Your task to perform on an android device: turn on the 24-hour format for clock Image 0: 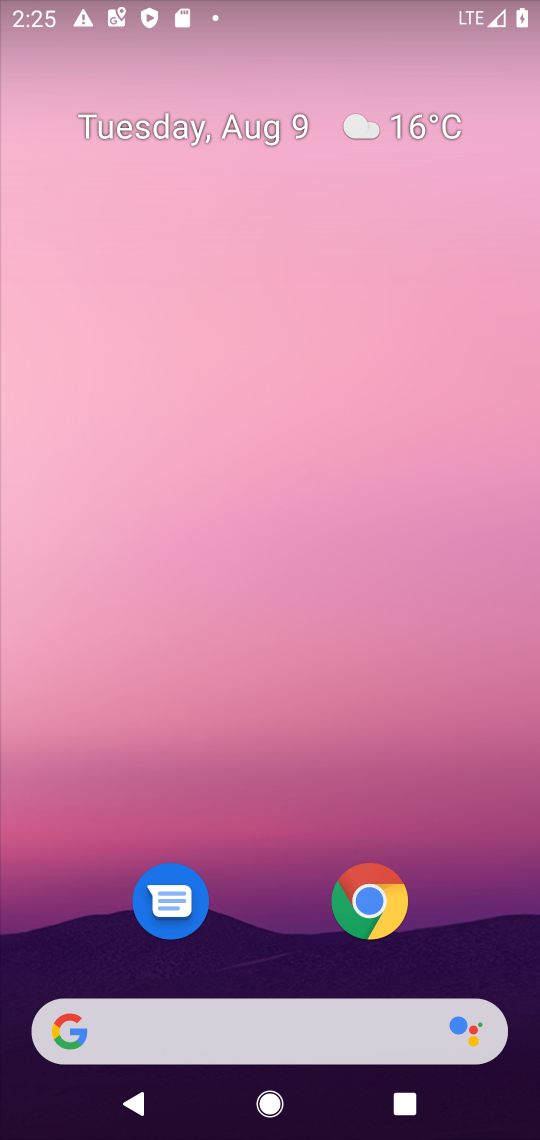
Step 0: drag from (512, 964) to (468, 158)
Your task to perform on an android device: turn on the 24-hour format for clock Image 1: 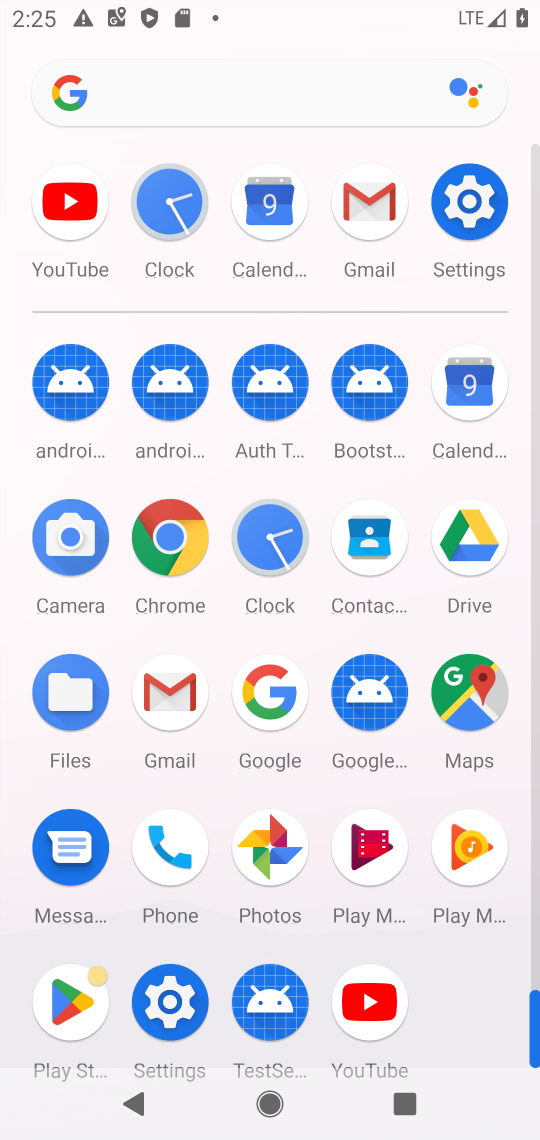
Step 1: click (271, 537)
Your task to perform on an android device: turn on the 24-hour format for clock Image 2: 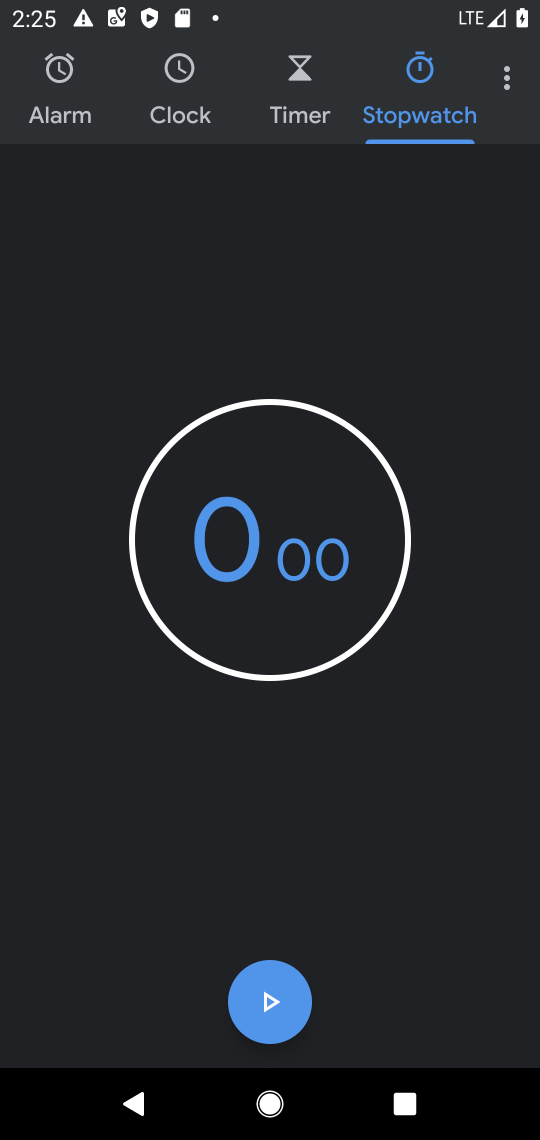
Step 2: click (501, 85)
Your task to perform on an android device: turn on the 24-hour format for clock Image 3: 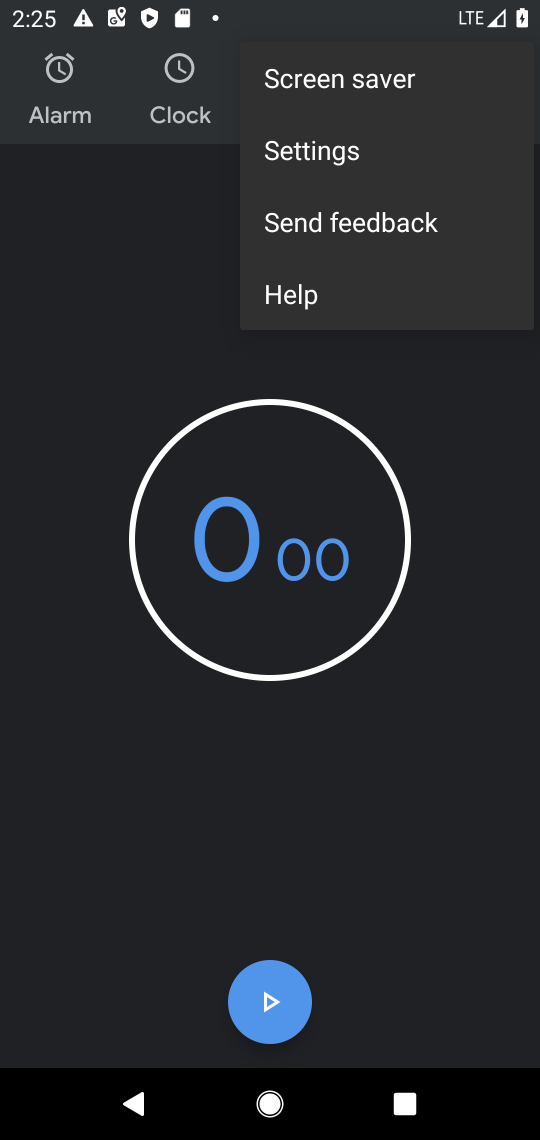
Step 3: click (321, 152)
Your task to perform on an android device: turn on the 24-hour format for clock Image 4: 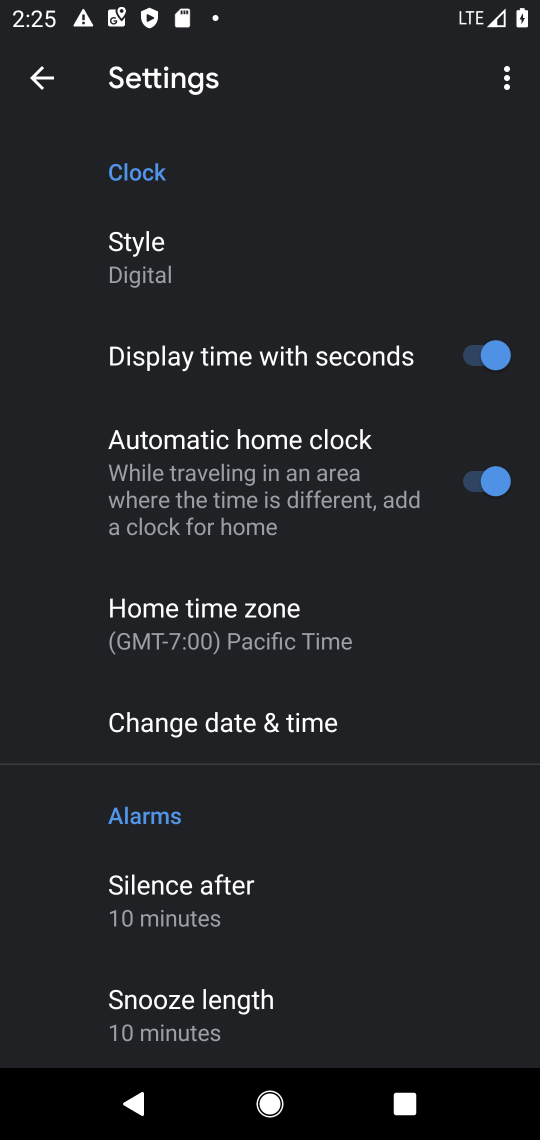
Step 4: click (238, 729)
Your task to perform on an android device: turn on the 24-hour format for clock Image 5: 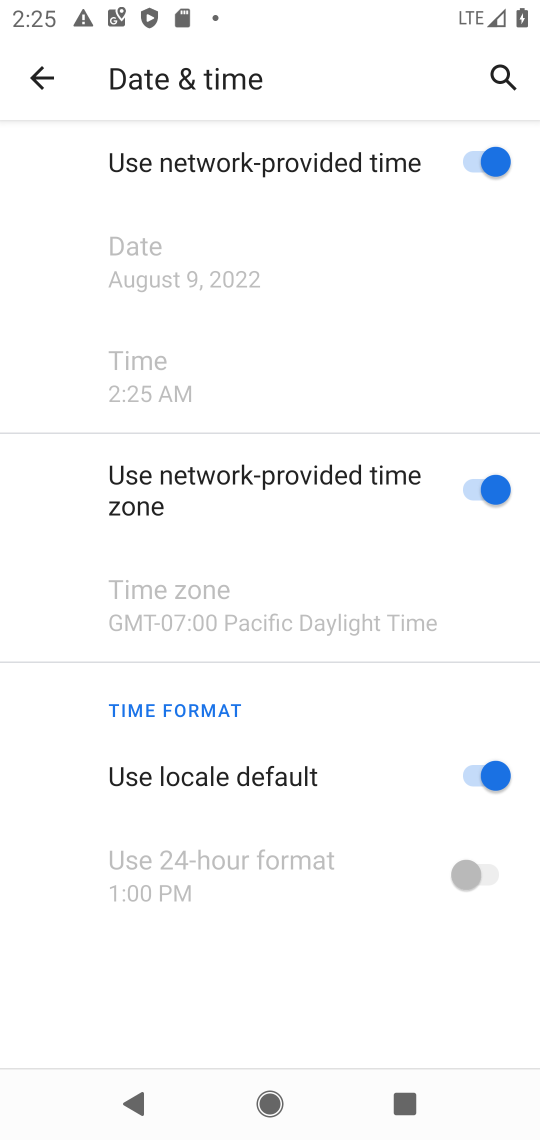
Step 5: click (467, 773)
Your task to perform on an android device: turn on the 24-hour format for clock Image 6: 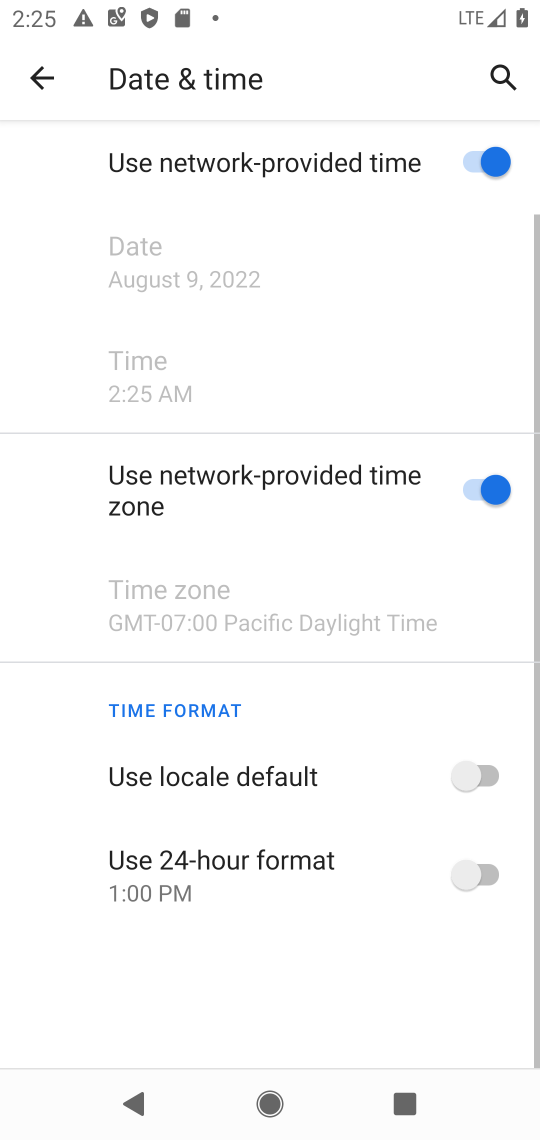
Step 6: click (486, 876)
Your task to perform on an android device: turn on the 24-hour format for clock Image 7: 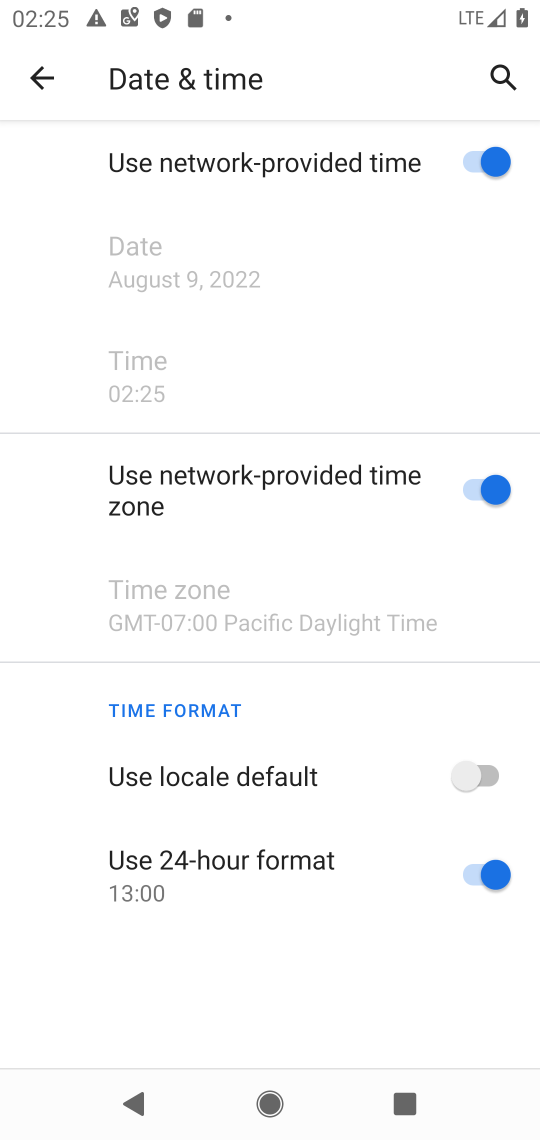
Step 7: task complete